Your task to perform on an android device: Show me productivity apps on the Play Store Image 0: 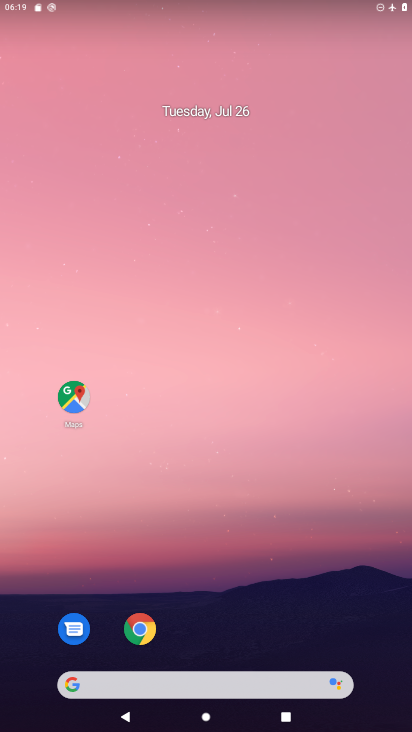
Step 0: drag from (197, 642) to (230, 11)
Your task to perform on an android device: Show me productivity apps on the Play Store Image 1: 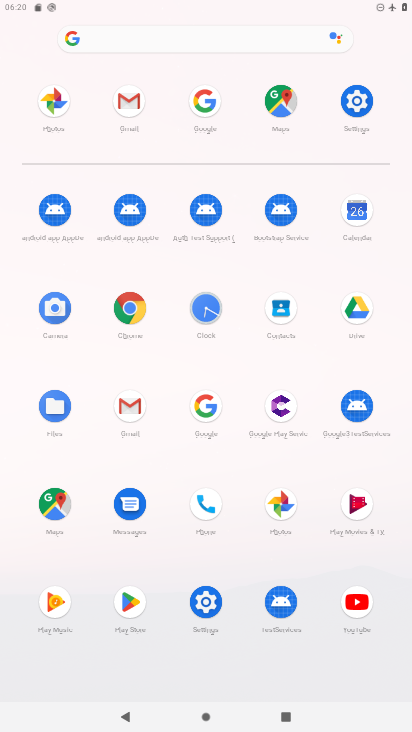
Step 1: click (135, 624)
Your task to perform on an android device: Show me productivity apps on the Play Store Image 2: 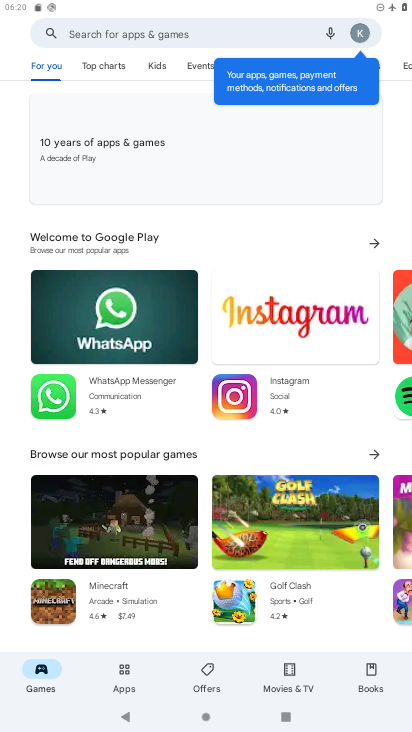
Step 2: click (116, 671)
Your task to perform on an android device: Show me productivity apps on the Play Store Image 3: 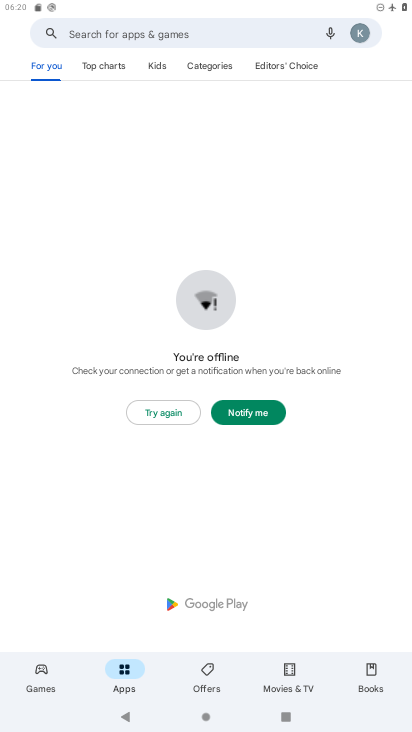
Step 3: press back button
Your task to perform on an android device: Show me productivity apps on the Play Store Image 4: 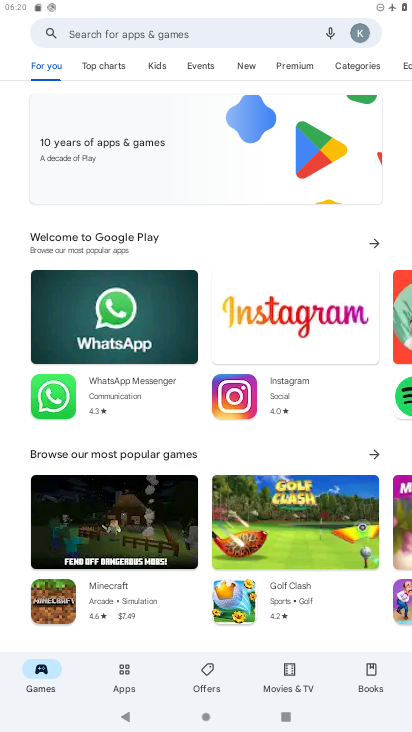
Step 4: press back button
Your task to perform on an android device: Show me productivity apps on the Play Store Image 5: 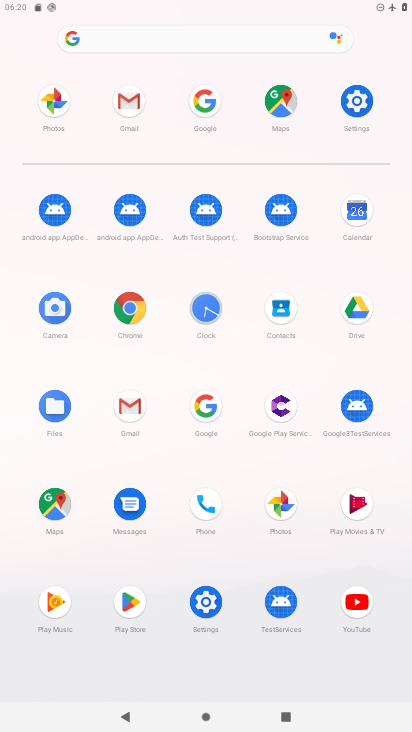
Step 5: click (355, 118)
Your task to perform on an android device: Show me productivity apps on the Play Store Image 6: 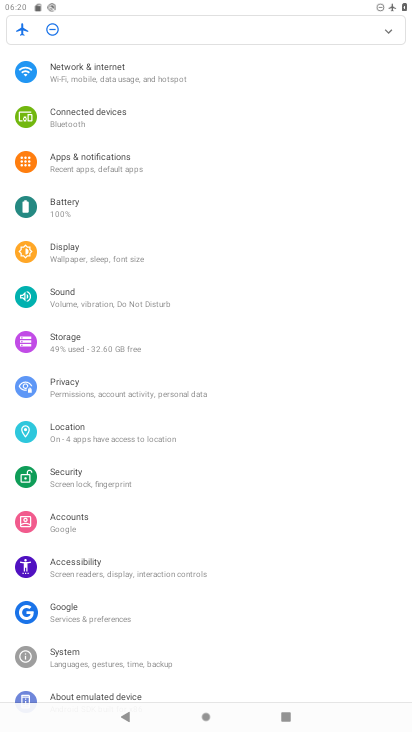
Step 6: click (391, 28)
Your task to perform on an android device: Show me productivity apps on the Play Store Image 7: 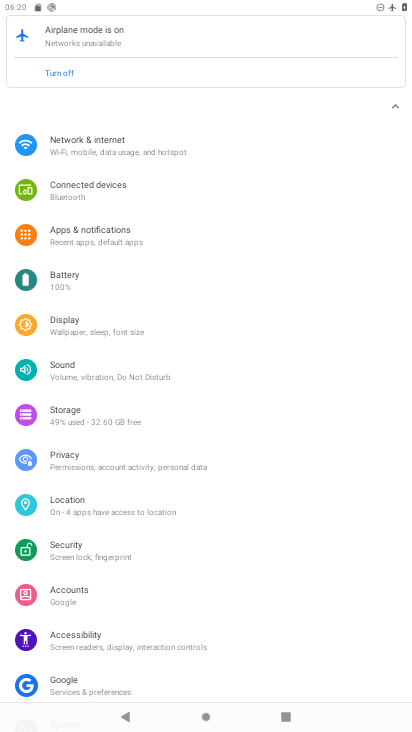
Step 7: click (52, 71)
Your task to perform on an android device: Show me productivity apps on the Play Store Image 8: 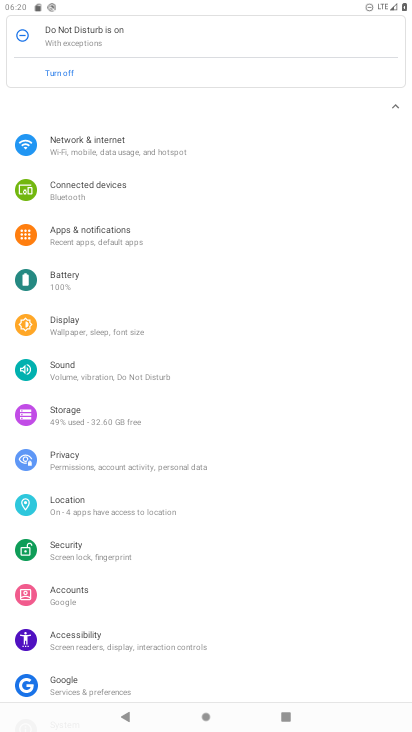
Step 8: click (62, 71)
Your task to perform on an android device: Show me productivity apps on the Play Store Image 9: 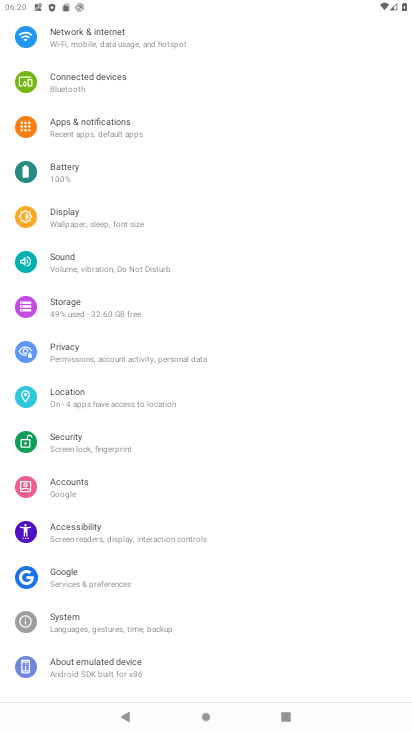
Step 9: press home button
Your task to perform on an android device: Show me productivity apps on the Play Store Image 10: 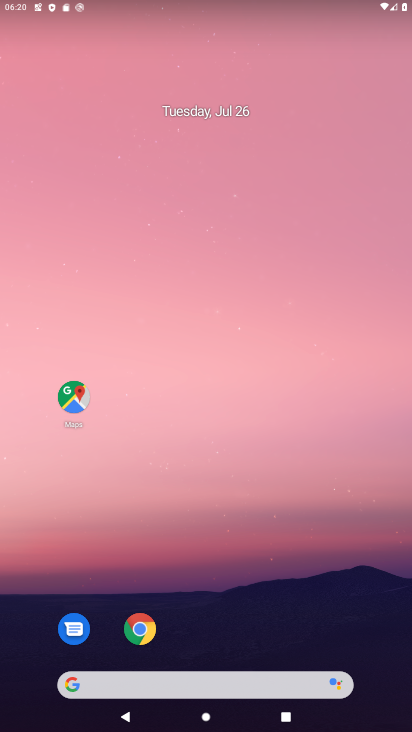
Step 10: drag from (194, 526) to (186, 70)
Your task to perform on an android device: Show me productivity apps on the Play Store Image 11: 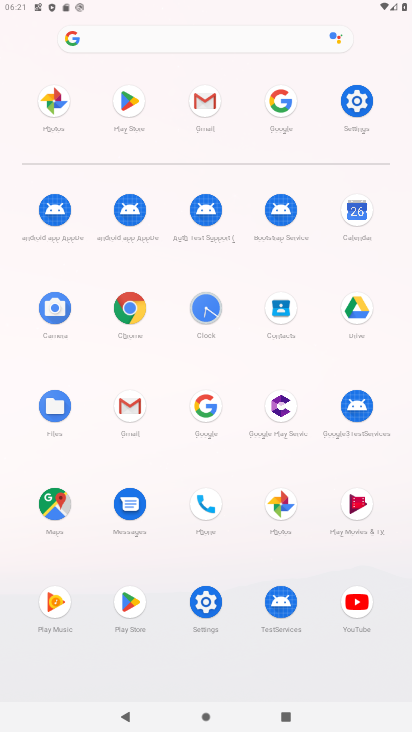
Step 11: click (133, 615)
Your task to perform on an android device: Show me productivity apps on the Play Store Image 12: 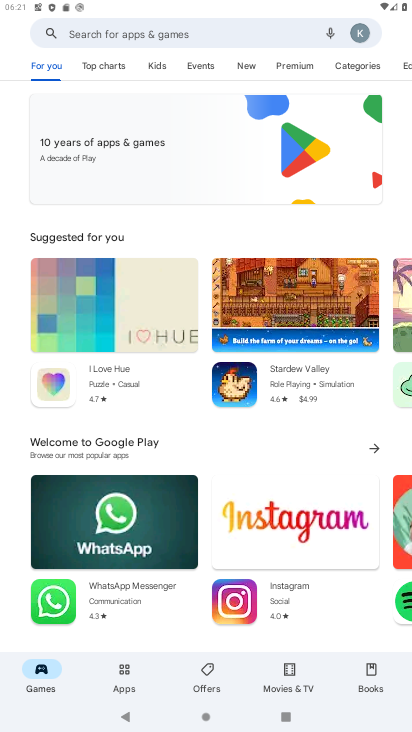
Step 12: click (133, 674)
Your task to perform on an android device: Show me productivity apps on the Play Store Image 13: 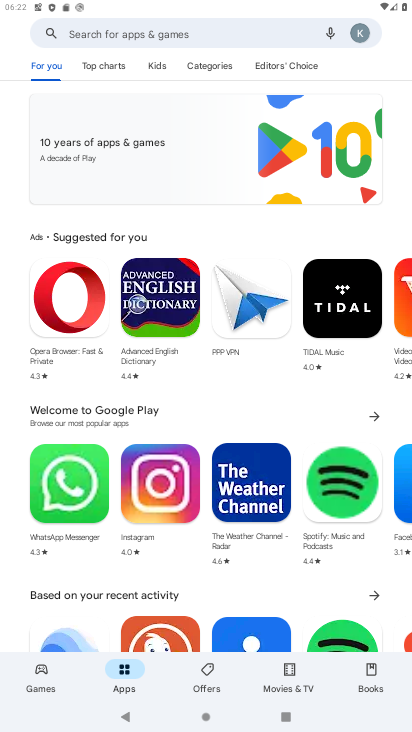
Step 13: click (216, 68)
Your task to perform on an android device: Show me productivity apps on the Play Store Image 14: 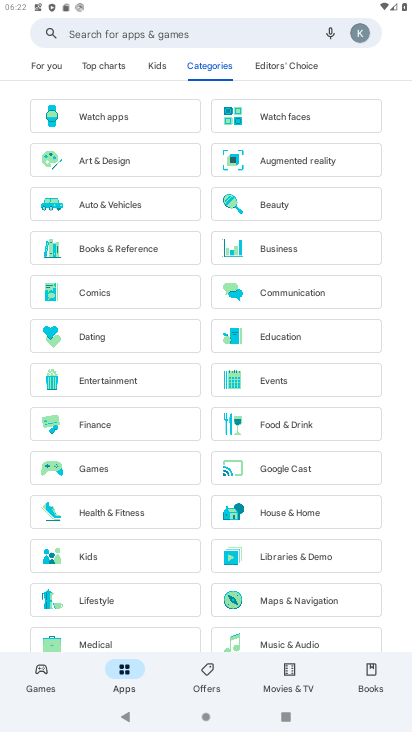
Step 14: drag from (265, 482) to (217, 190)
Your task to perform on an android device: Show me productivity apps on the Play Store Image 15: 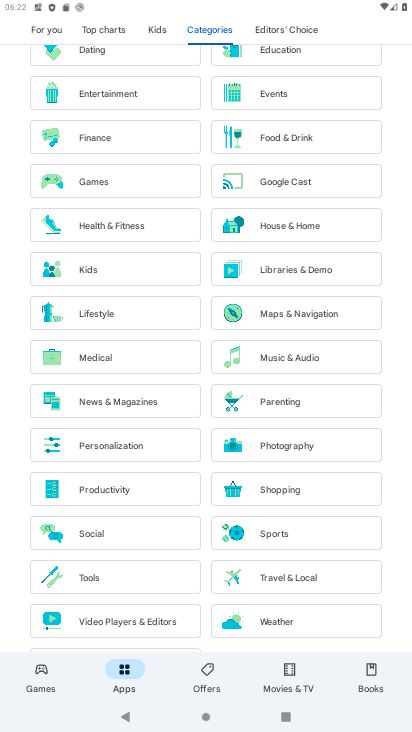
Step 15: click (135, 478)
Your task to perform on an android device: Show me productivity apps on the Play Store Image 16: 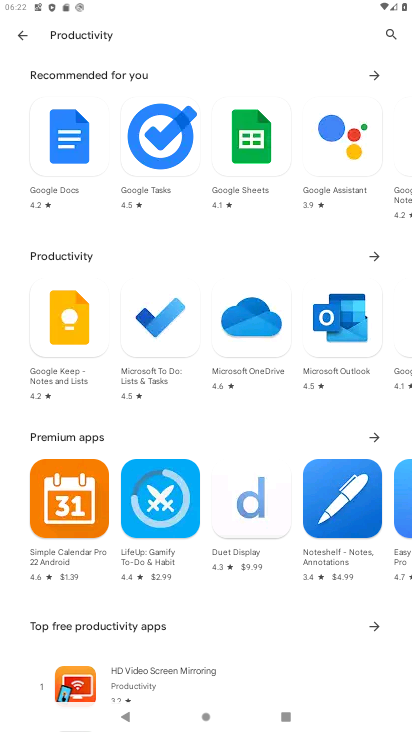
Step 16: task complete